Your task to perform on an android device: Show me popular games on the Play Store Image 0: 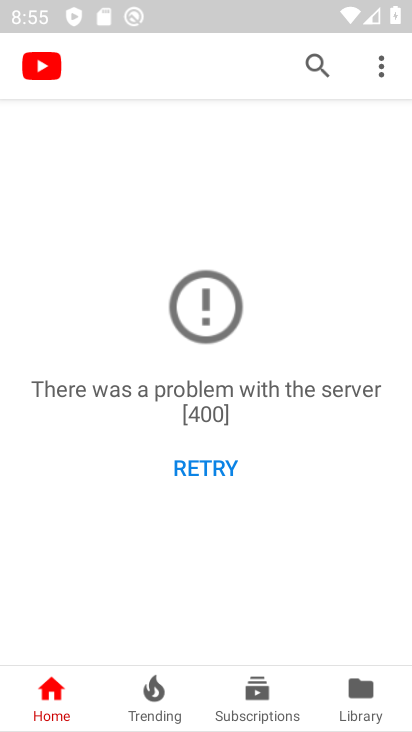
Step 0: press back button
Your task to perform on an android device: Show me popular games on the Play Store Image 1: 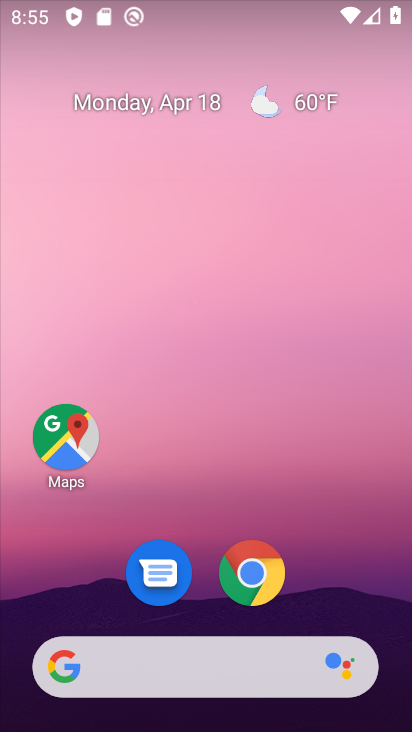
Step 1: drag from (204, 616) to (224, 174)
Your task to perform on an android device: Show me popular games on the Play Store Image 2: 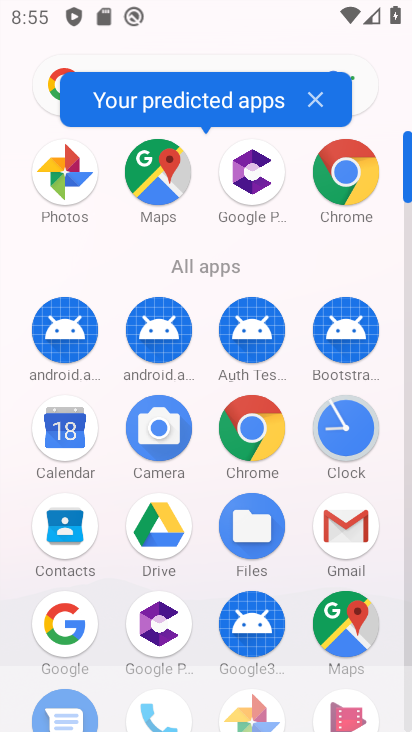
Step 2: drag from (210, 648) to (217, 174)
Your task to perform on an android device: Show me popular games on the Play Store Image 3: 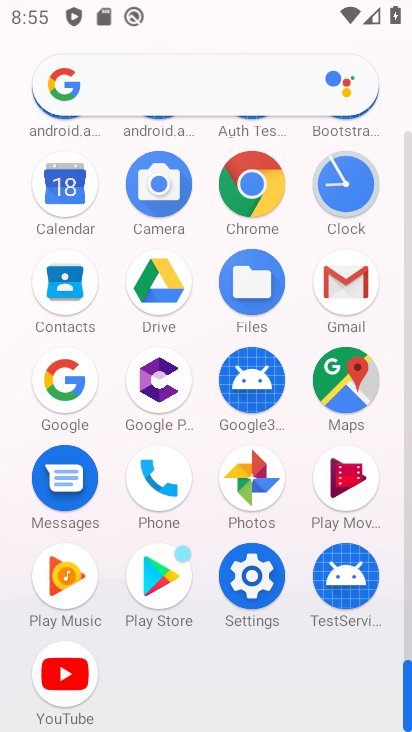
Step 3: click (158, 579)
Your task to perform on an android device: Show me popular games on the Play Store Image 4: 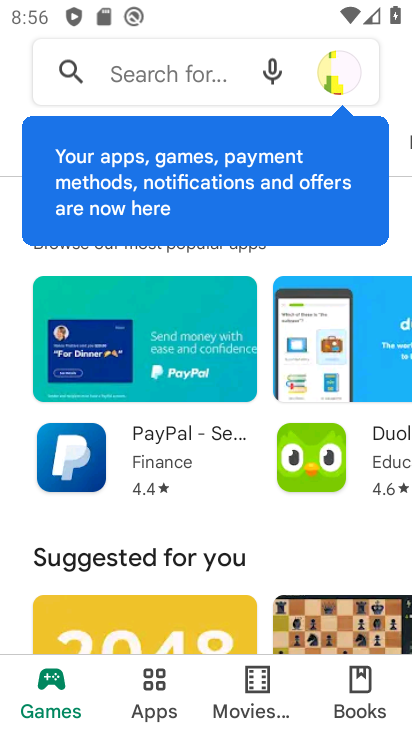
Step 4: drag from (178, 578) to (226, 162)
Your task to perform on an android device: Show me popular games on the Play Store Image 5: 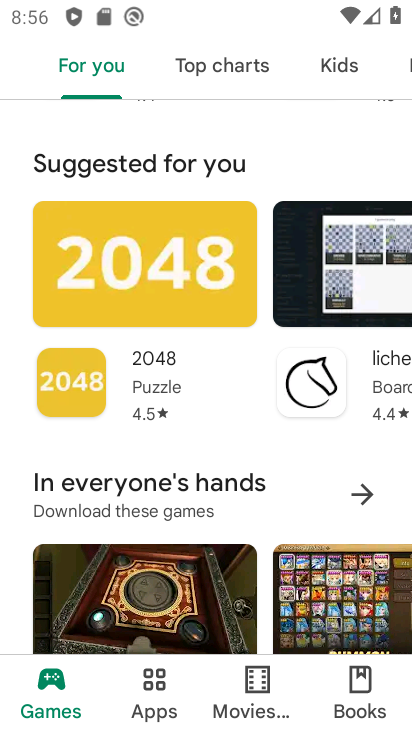
Step 5: drag from (213, 514) to (265, 158)
Your task to perform on an android device: Show me popular games on the Play Store Image 6: 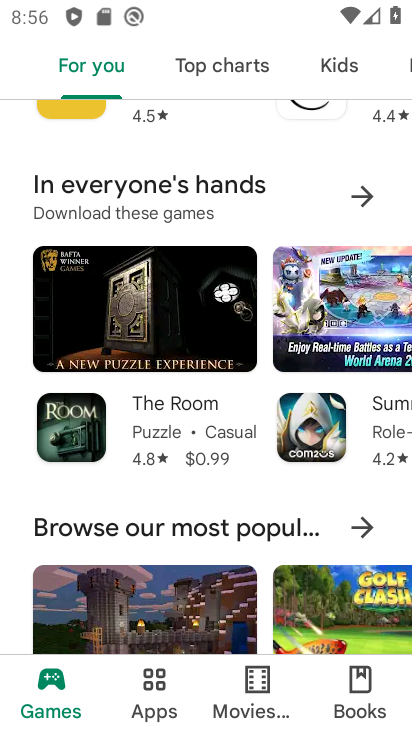
Step 6: drag from (182, 611) to (209, 326)
Your task to perform on an android device: Show me popular games on the Play Store Image 7: 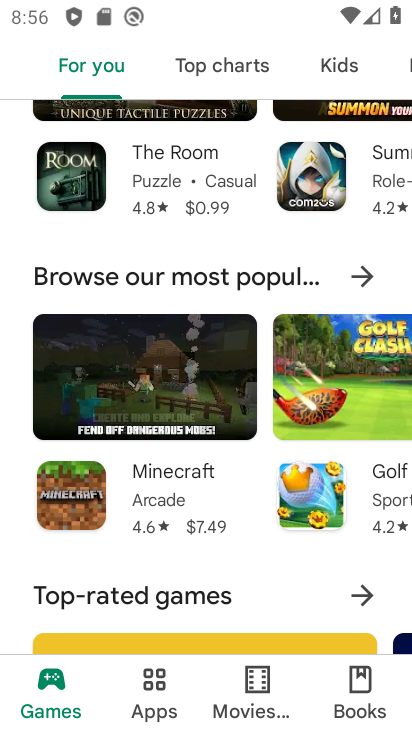
Step 7: click (359, 272)
Your task to perform on an android device: Show me popular games on the Play Store Image 8: 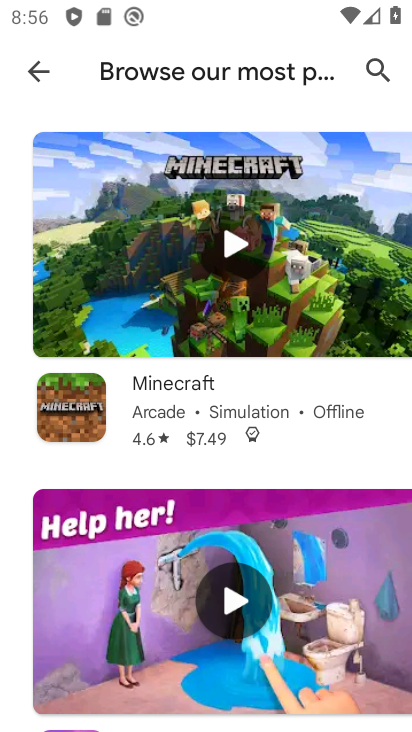
Step 8: task complete